Your task to perform on an android device: Check the news Image 0: 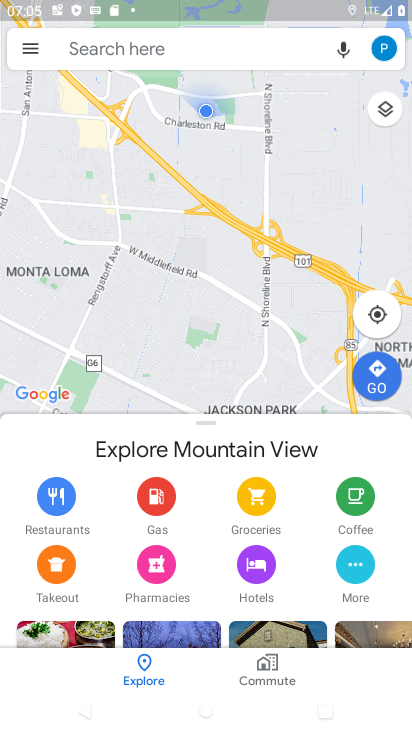
Step 0: press home button
Your task to perform on an android device: Check the news Image 1: 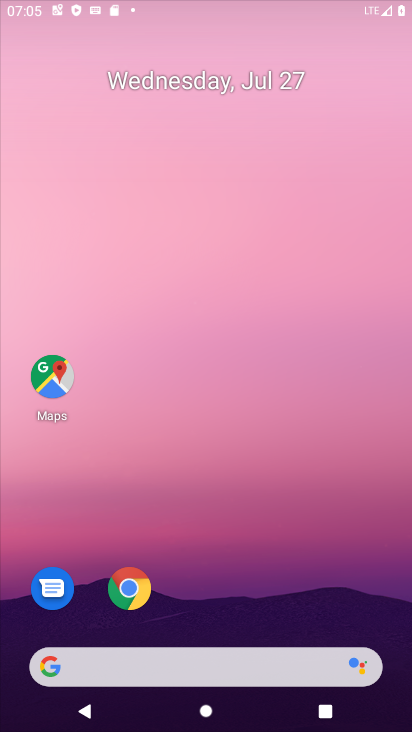
Step 1: drag from (180, 656) to (209, 0)
Your task to perform on an android device: Check the news Image 2: 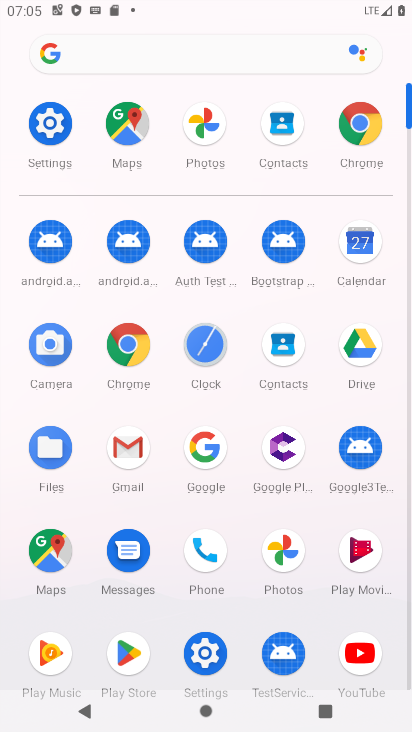
Step 2: click (135, 352)
Your task to perform on an android device: Check the news Image 3: 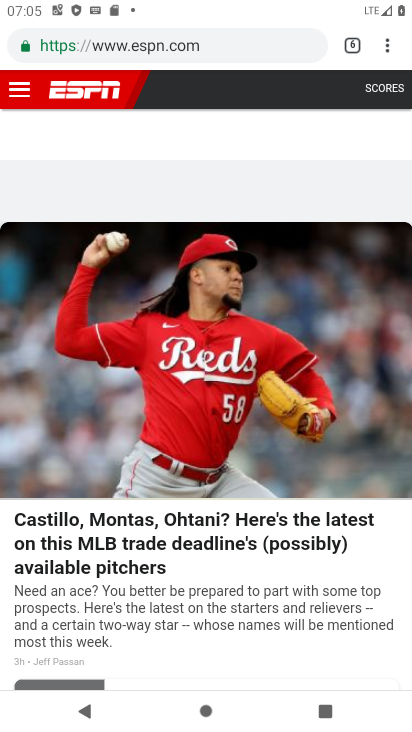
Step 3: click (228, 49)
Your task to perform on an android device: Check the news Image 4: 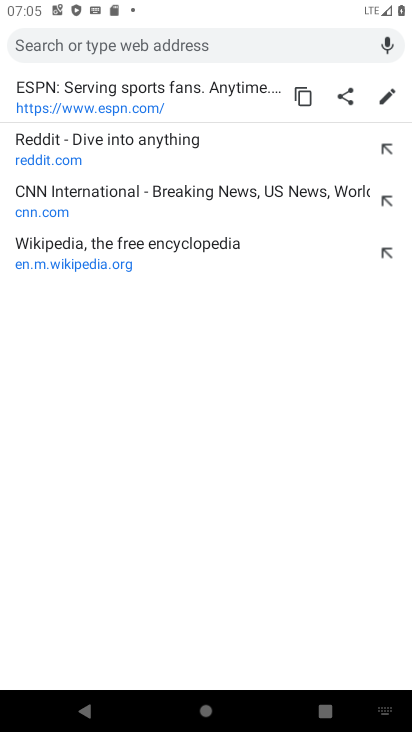
Step 4: type "check the news"
Your task to perform on an android device: Check the news Image 5: 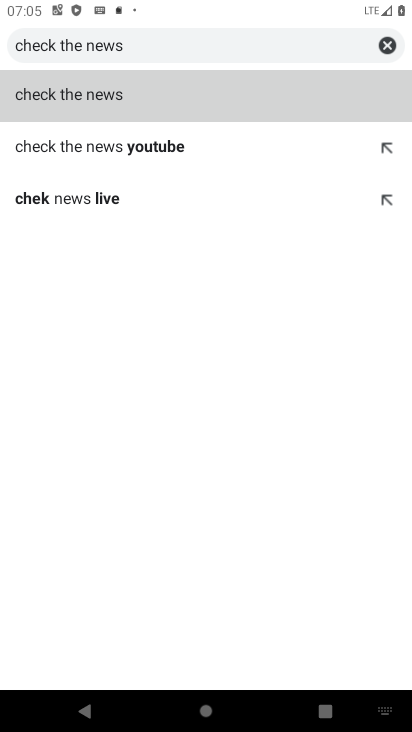
Step 5: click (244, 84)
Your task to perform on an android device: Check the news Image 6: 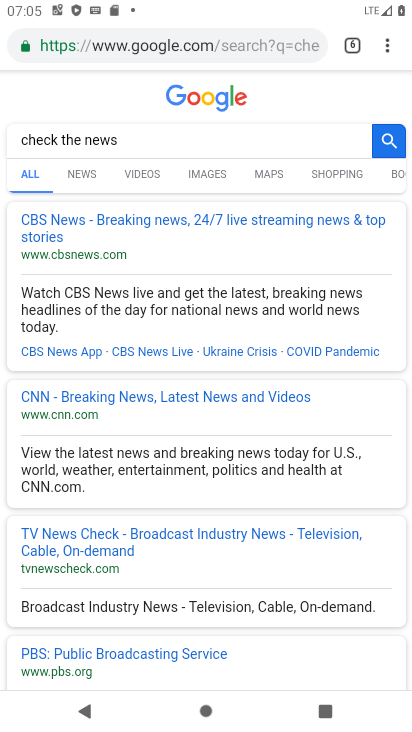
Step 6: task complete